Your task to perform on an android device: Go to Wikipedia Image 0: 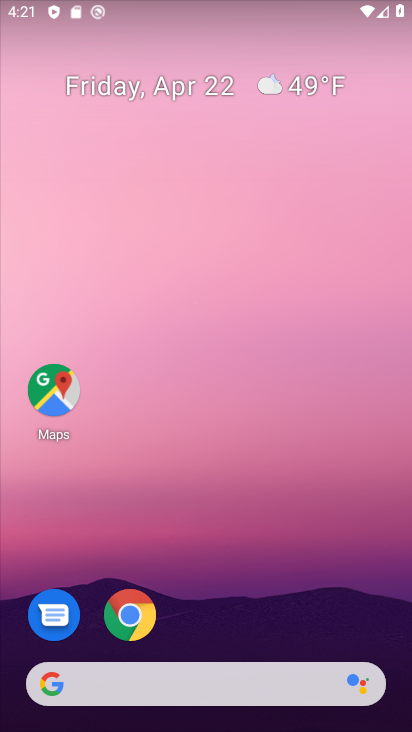
Step 0: click (185, 673)
Your task to perform on an android device: Go to Wikipedia Image 1: 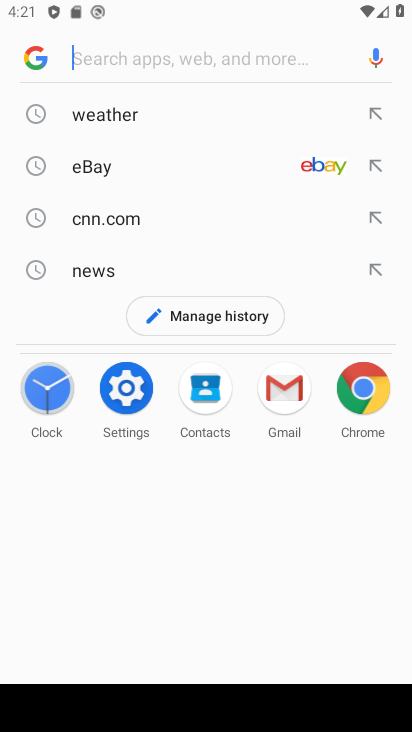
Step 1: type "Wikipedia"
Your task to perform on an android device: Go to Wikipedia Image 2: 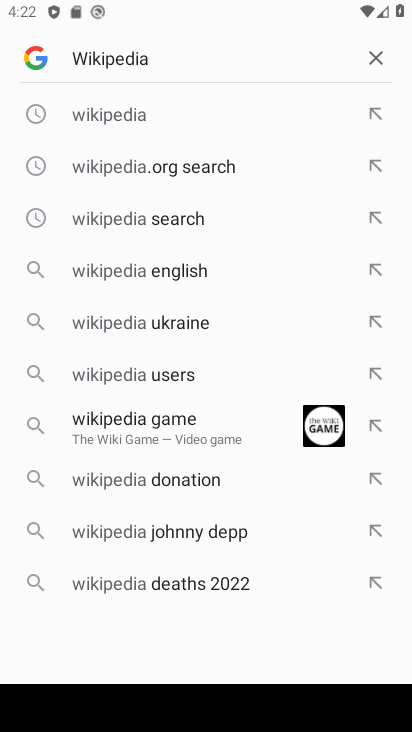
Step 2: click (121, 114)
Your task to perform on an android device: Go to Wikipedia Image 3: 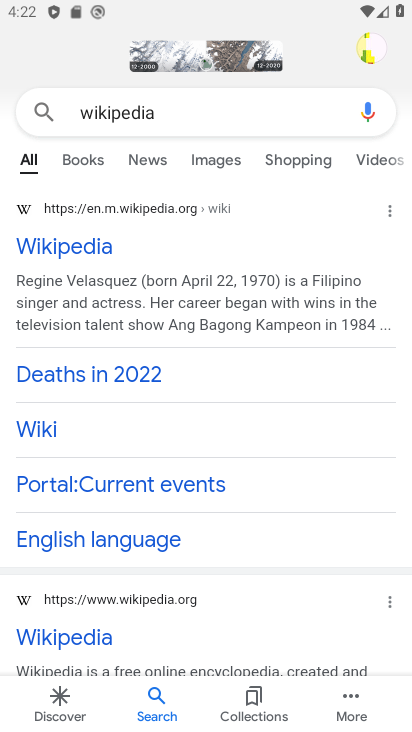
Step 3: click (78, 243)
Your task to perform on an android device: Go to Wikipedia Image 4: 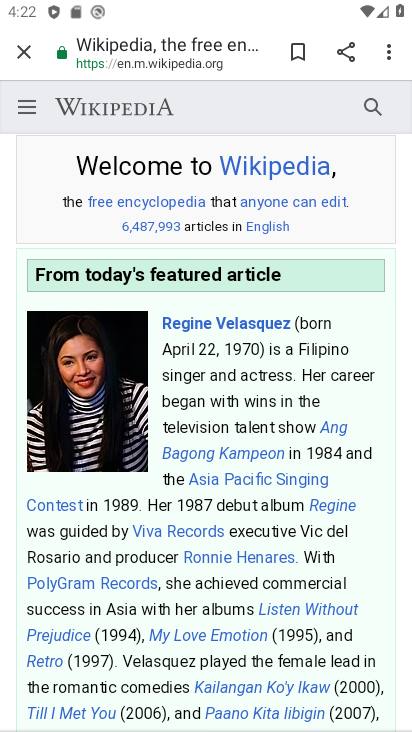
Step 4: task complete